Your task to perform on an android device: turn off sleep mode Image 0: 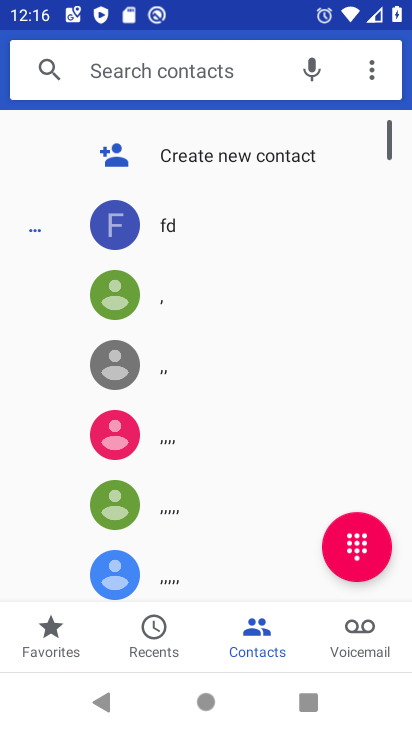
Step 0: press home button
Your task to perform on an android device: turn off sleep mode Image 1: 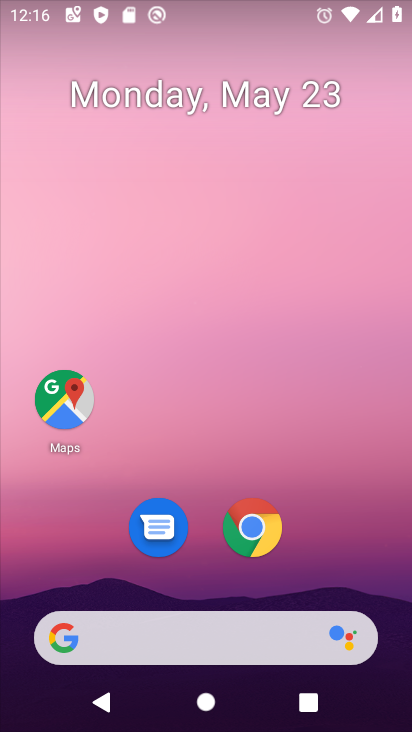
Step 1: drag from (337, 559) to (325, 102)
Your task to perform on an android device: turn off sleep mode Image 2: 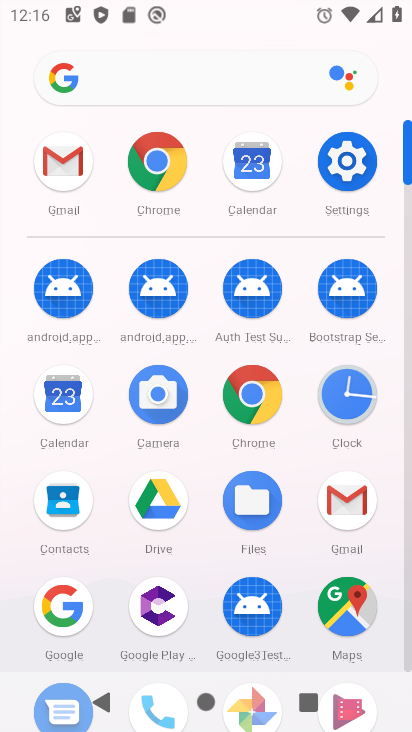
Step 2: click (333, 196)
Your task to perform on an android device: turn off sleep mode Image 3: 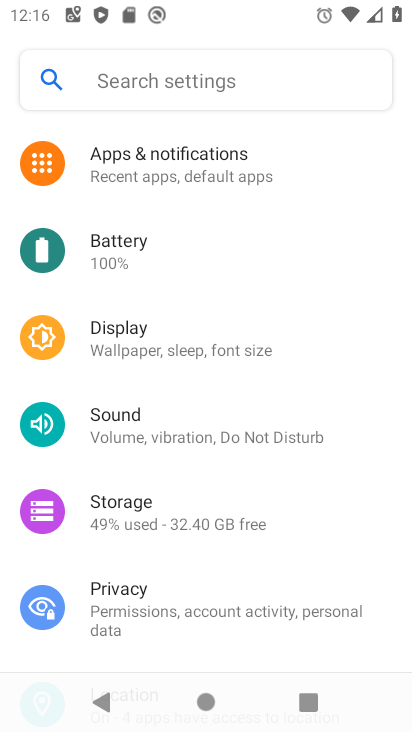
Step 3: click (241, 342)
Your task to perform on an android device: turn off sleep mode Image 4: 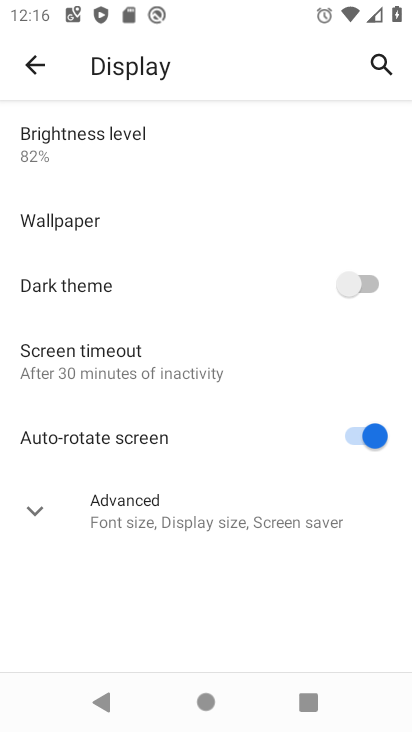
Step 4: click (241, 342)
Your task to perform on an android device: turn off sleep mode Image 5: 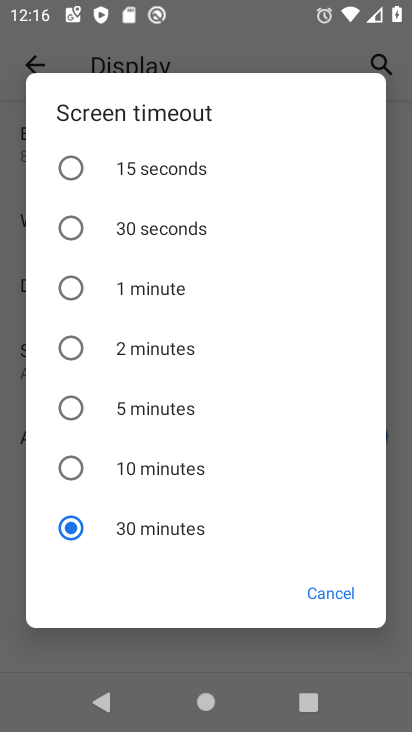
Step 5: drag from (188, 184) to (171, 302)
Your task to perform on an android device: turn off sleep mode Image 6: 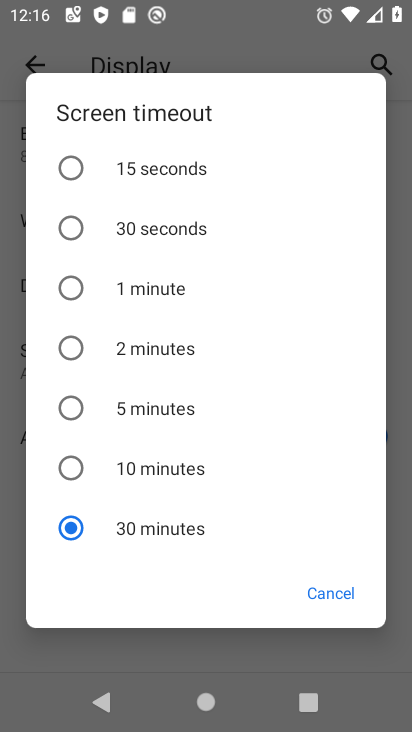
Step 6: click (180, 188)
Your task to perform on an android device: turn off sleep mode Image 7: 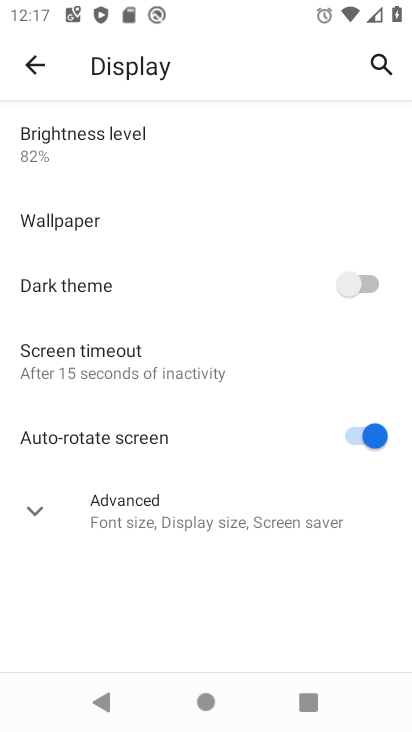
Step 7: task complete